Your task to perform on an android device: Open calendar and show me the fourth week of next month Image 0: 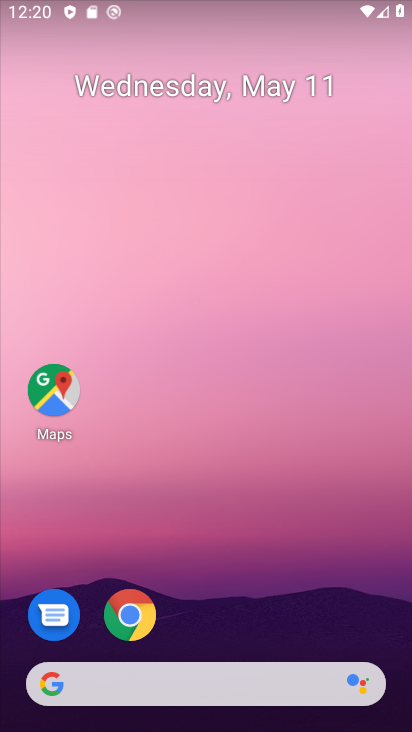
Step 0: click (111, 82)
Your task to perform on an android device: Open calendar and show me the fourth week of next month Image 1: 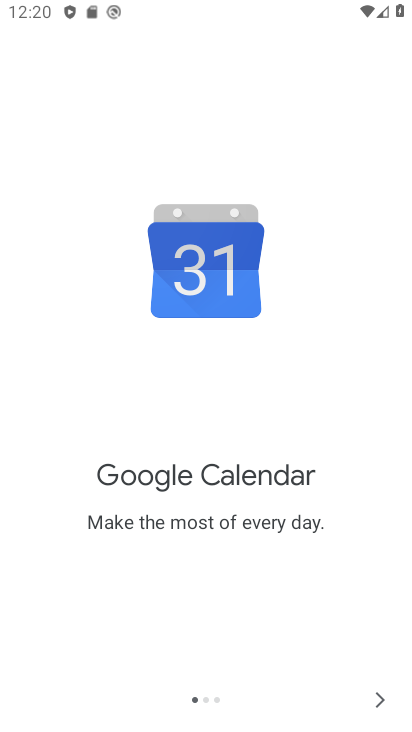
Step 1: click (365, 699)
Your task to perform on an android device: Open calendar and show me the fourth week of next month Image 2: 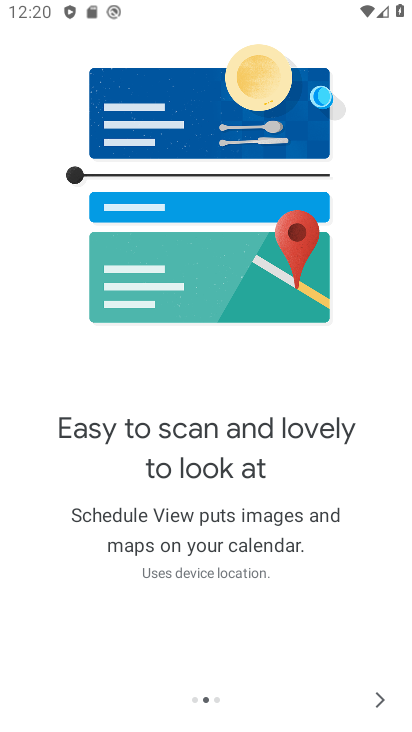
Step 2: click (388, 691)
Your task to perform on an android device: Open calendar and show me the fourth week of next month Image 3: 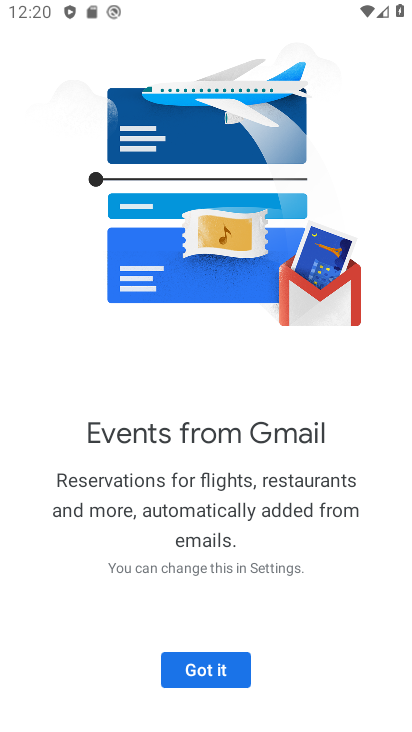
Step 3: click (214, 678)
Your task to perform on an android device: Open calendar and show me the fourth week of next month Image 4: 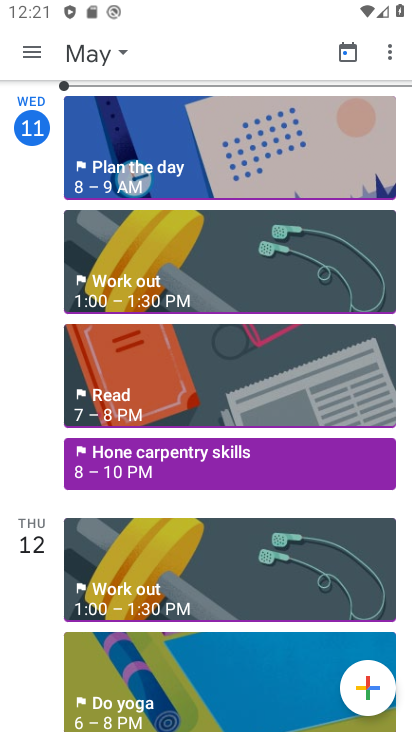
Step 4: click (30, 47)
Your task to perform on an android device: Open calendar and show me the fourth week of next month Image 5: 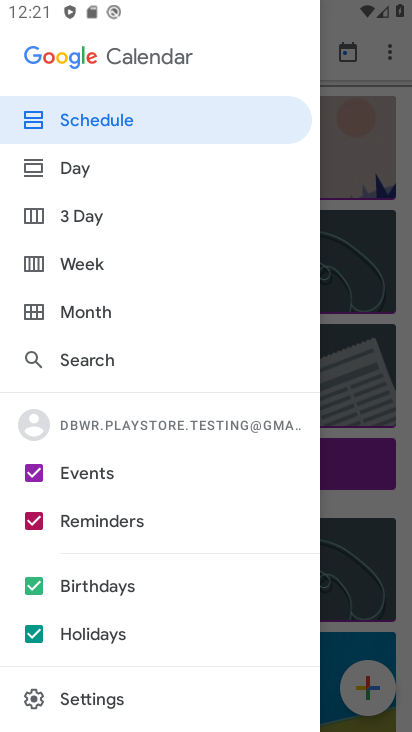
Step 5: click (370, 115)
Your task to perform on an android device: Open calendar and show me the fourth week of next month Image 6: 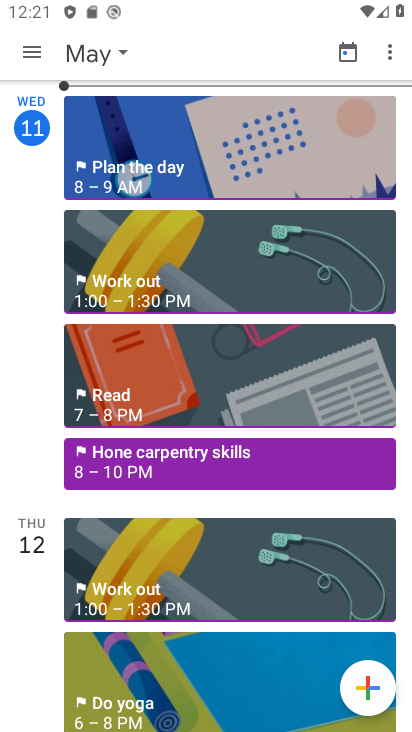
Step 6: click (100, 59)
Your task to perform on an android device: Open calendar and show me the fourth week of next month Image 7: 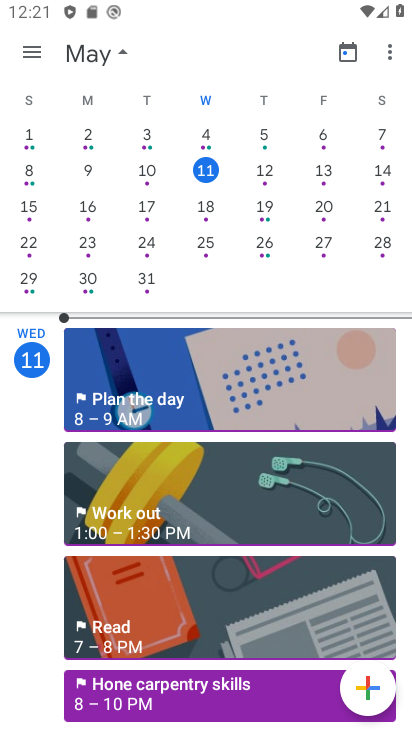
Step 7: drag from (344, 292) to (97, 290)
Your task to perform on an android device: Open calendar and show me the fourth week of next month Image 8: 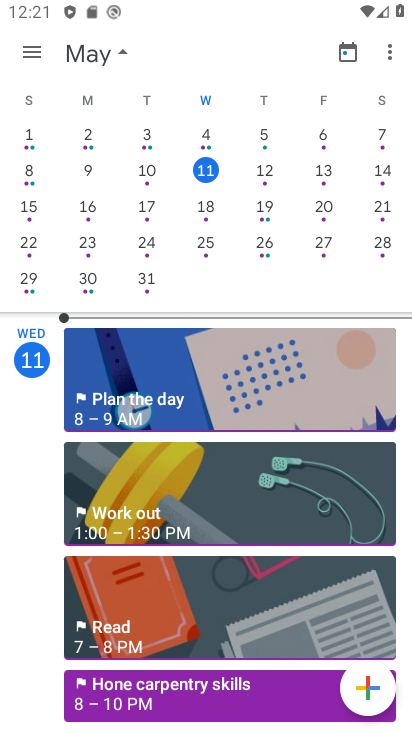
Step 8: drag from (392, 275) to (10, 259)
Your task to perform on an android device: Open calendar and show me the fourth week of next month Image 9: 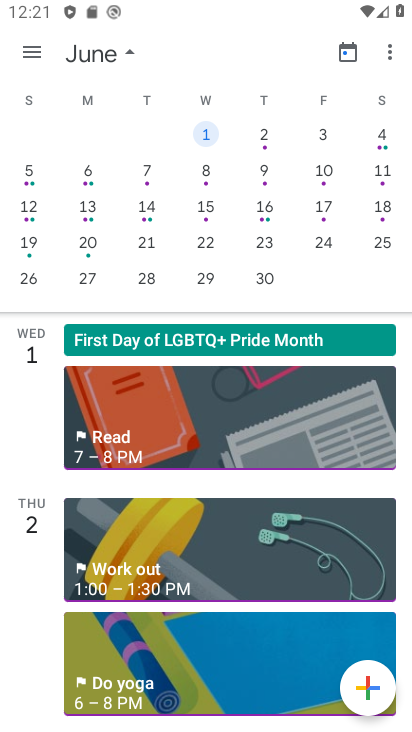
Step 9: click (266, 239)
Your task to perform on an android device: Open calendar and show me the fourth week of next month Image 10: 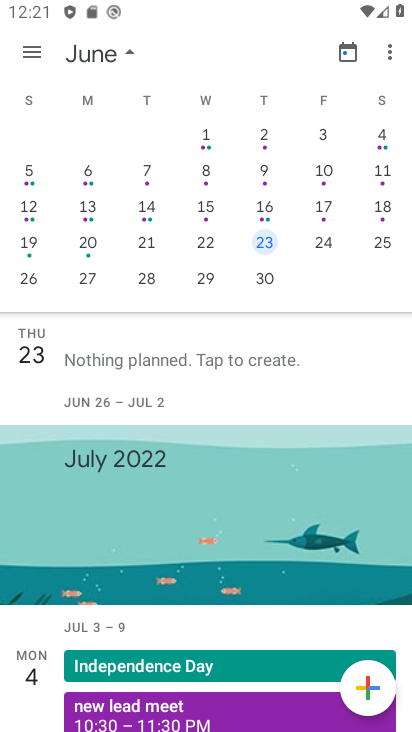
Step 10: task complete